Your task to perform on an android device: delete browsing data in the chrome app Image 0: 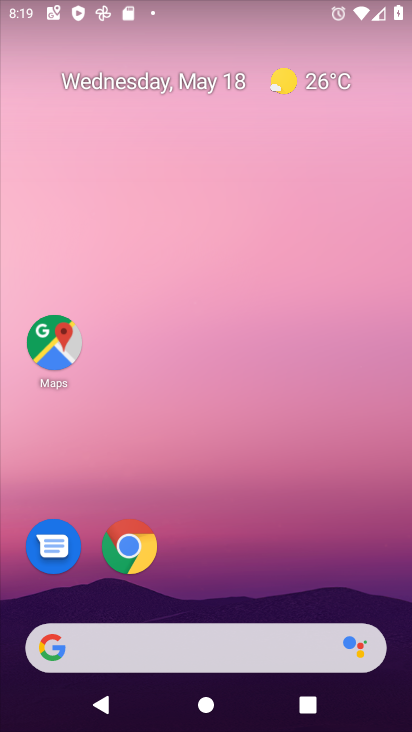
Step 0: drag from (398, 635) to (340, 66)
Your task to perform on an android device: delete browsing data in the chrome app Image 1: 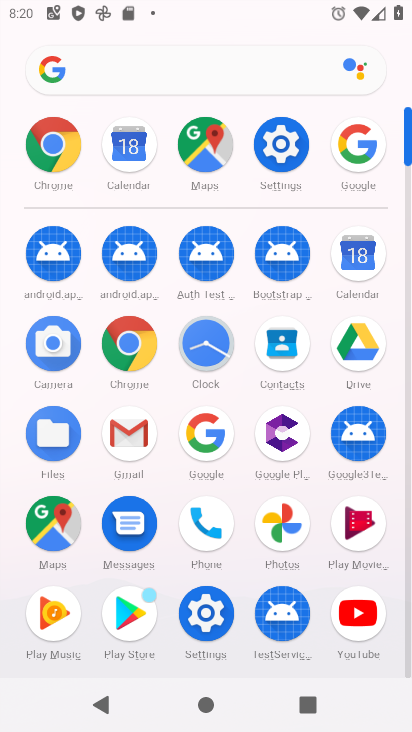
Step 1: click (135, 346)
Your task to perform on an android device: delete browsing data in the chrome app Image 2: 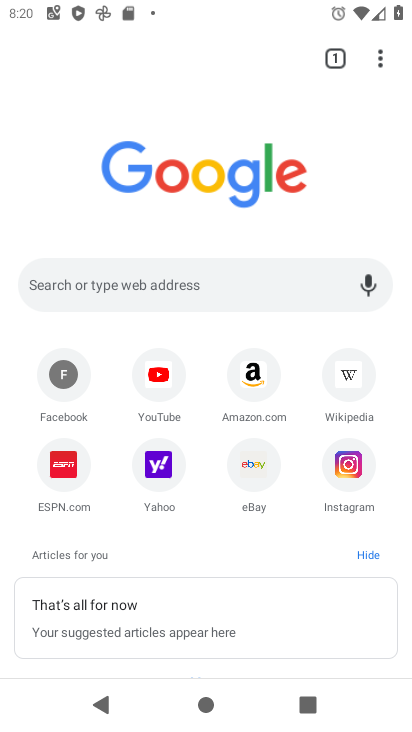
Step 2: click (390, 55)
Your task to perform on an android device: delete browsing data in the chrome app Image 3: 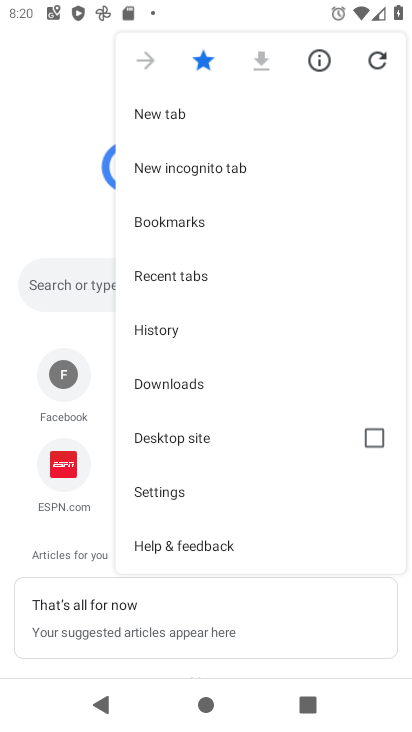
Step 3: click (211, 330)
Your task to perform on an android device: delete browsing data in the chrome app Image 4: 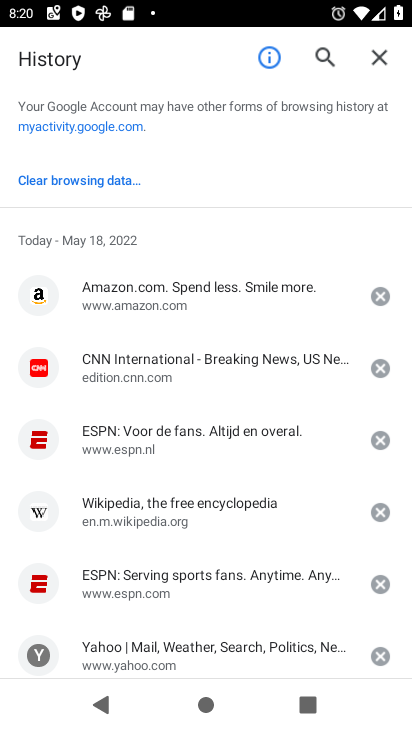
Step 4: click (89, 189)
Your task to perform on an android device: delete browsing data in the chrome app Image 5: 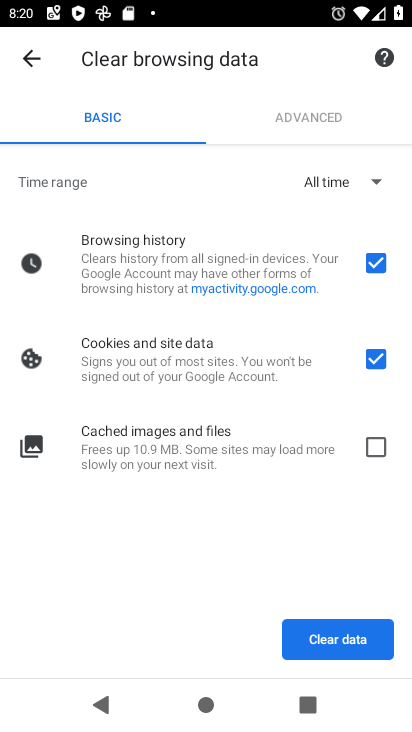
Step 5: click (332, 630)
Your task to perform on an android device: delete browsing data in the chrome app Image 6: 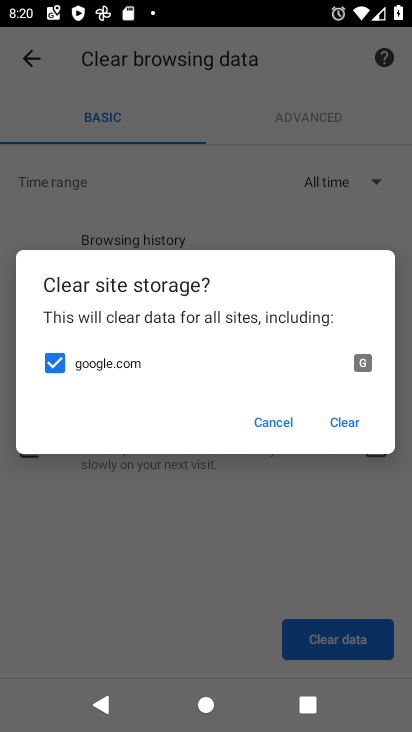
Step 6: click (343, 417)
Your task to perform on an android device: delete browsing data in the chrome app Image 7: 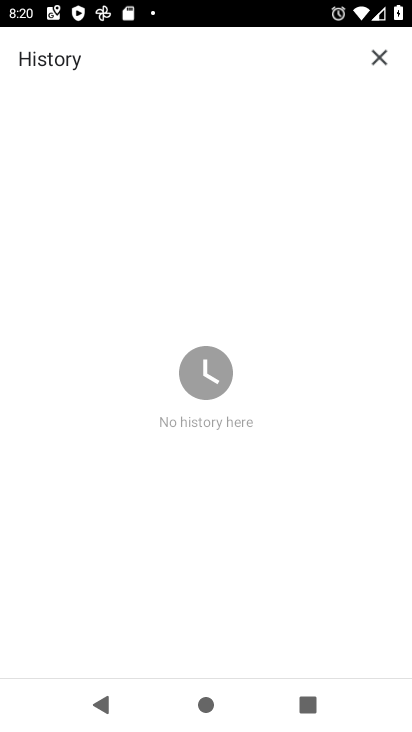
Step 7: task complete